Your task to perform on an android device: find which apps use the phone's location Image 0: 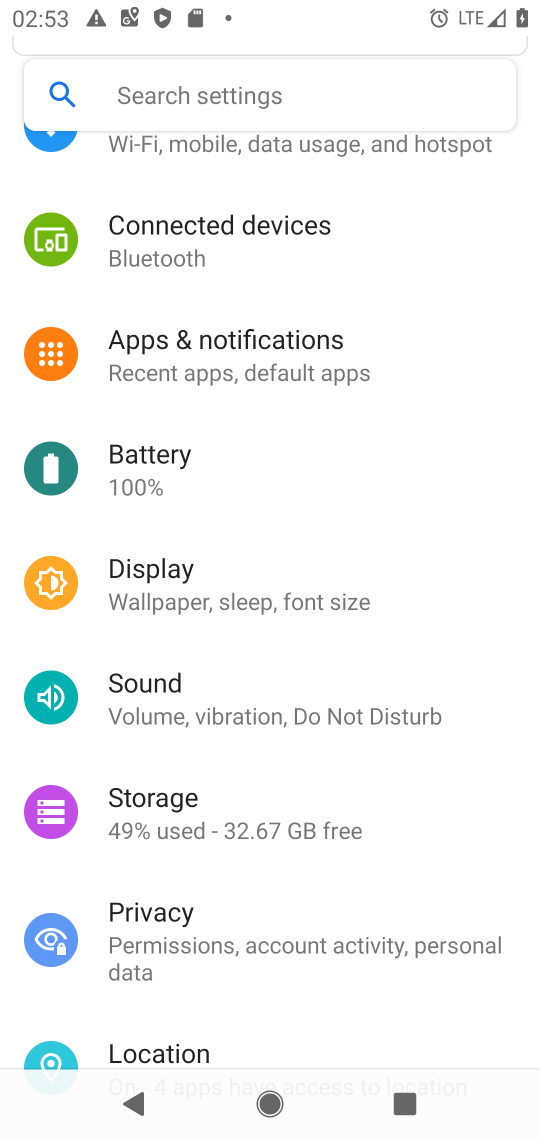
Step 0: press home button
Your task to perform on an android device: find which apps use the phone's location Image 1: 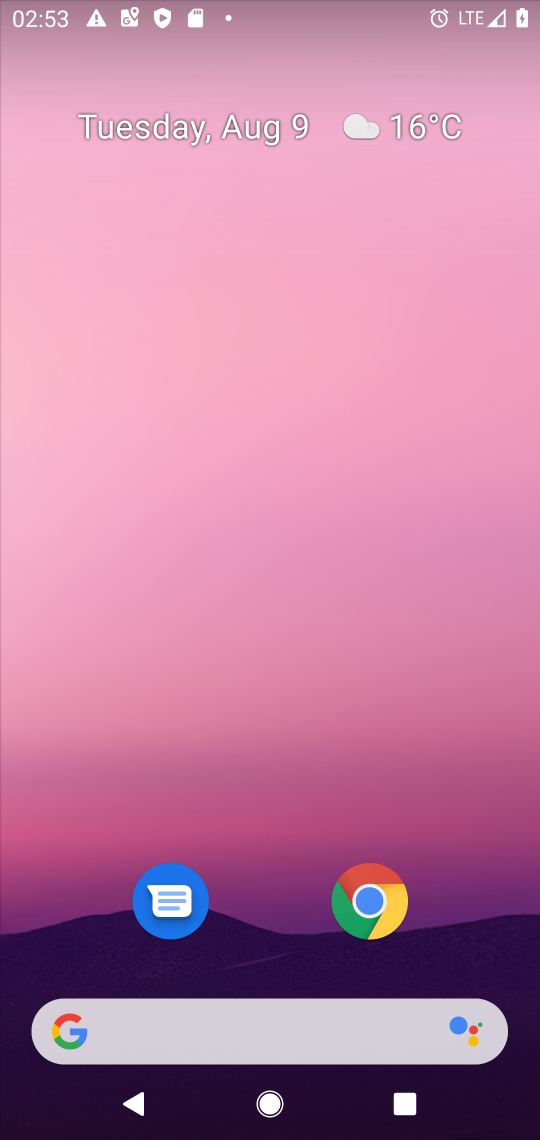
Step 1: drag from (508, 966) to (441, 317)
Your task to perform on an android device: find which apps use the phone's location Image 2: 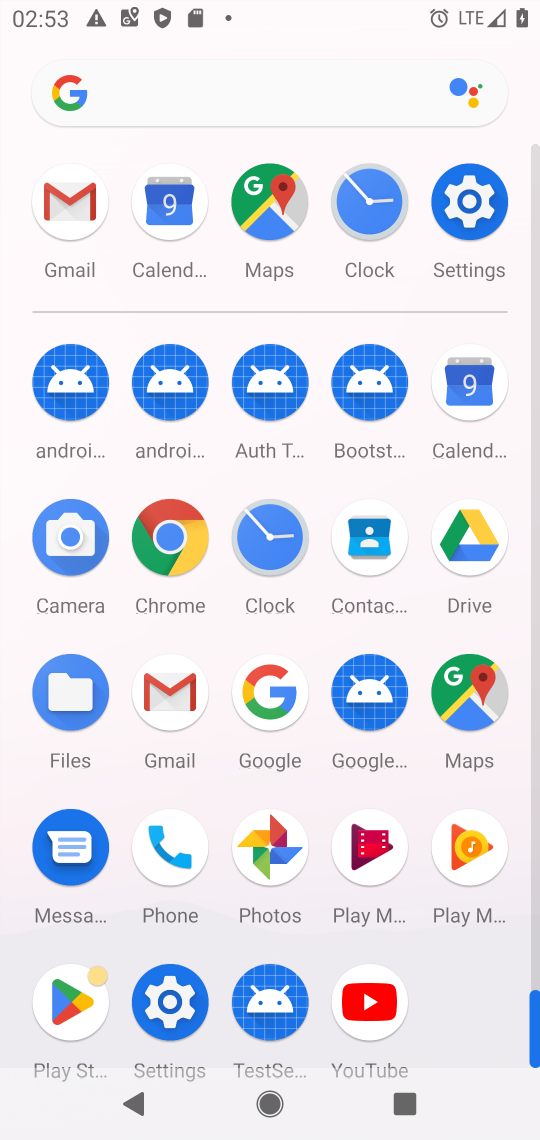
Step 2: click (170, 1000)
Your task to perform on an android device: find which apps use the phone's location Image 3: 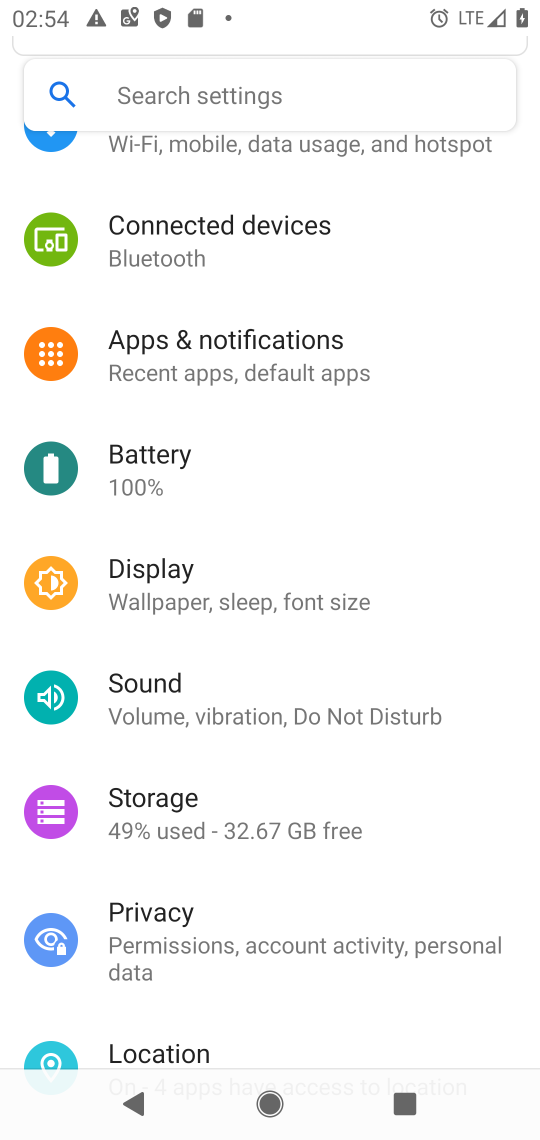
Step 3: drag from (308, 898) to (335, 345)
Your task to perform on an android device: find which apps use the phone's location Image 4: 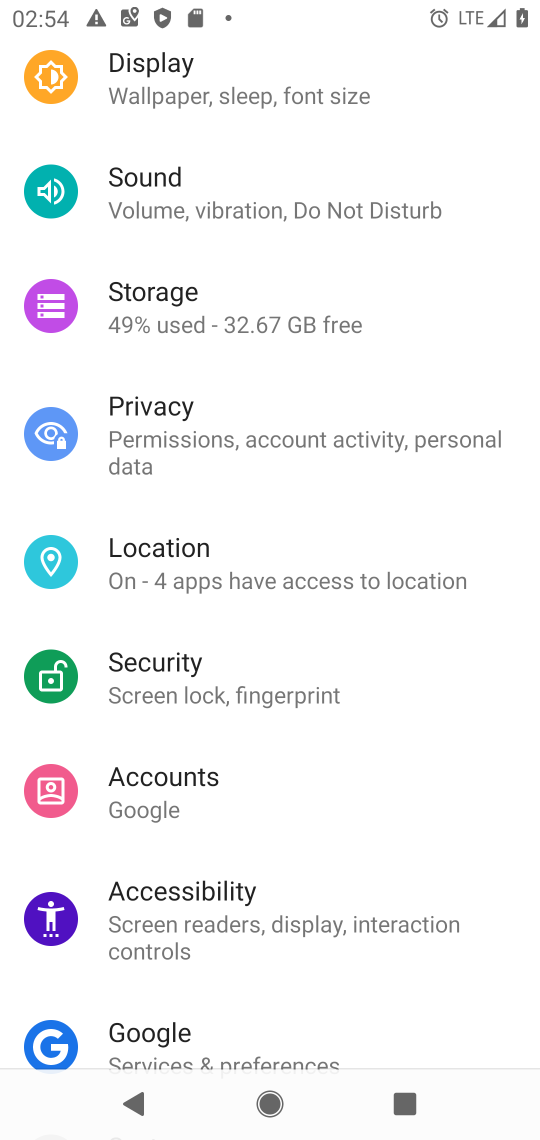
Step 4: click (177, 561)
Your task to perform on an android device: find which apps use the phone's location Image 5: 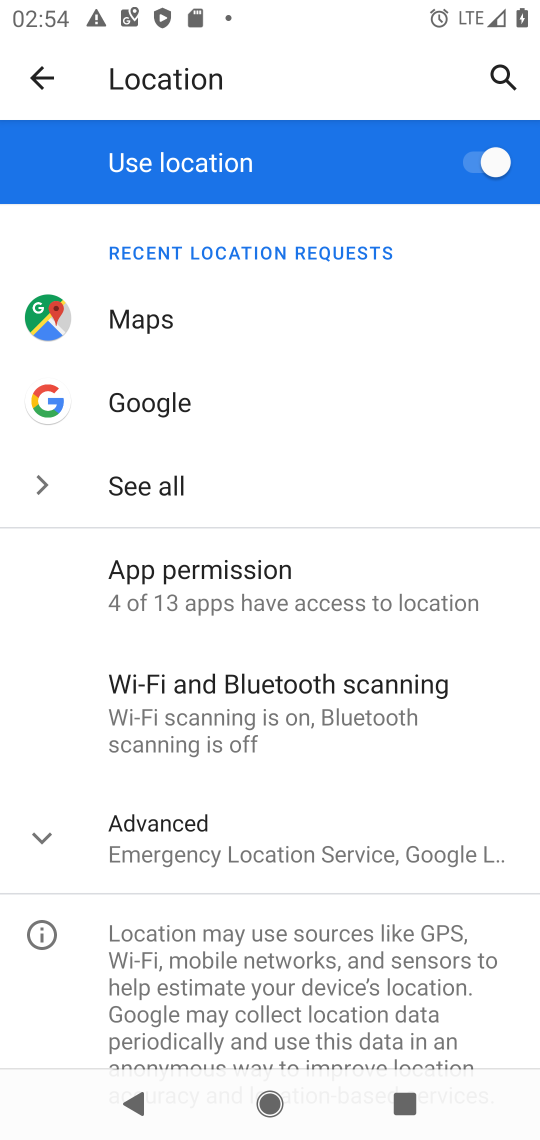
Step 5: click (214, 583)
Your task to perform on an android device: find which apps use the phone's location Image 6: 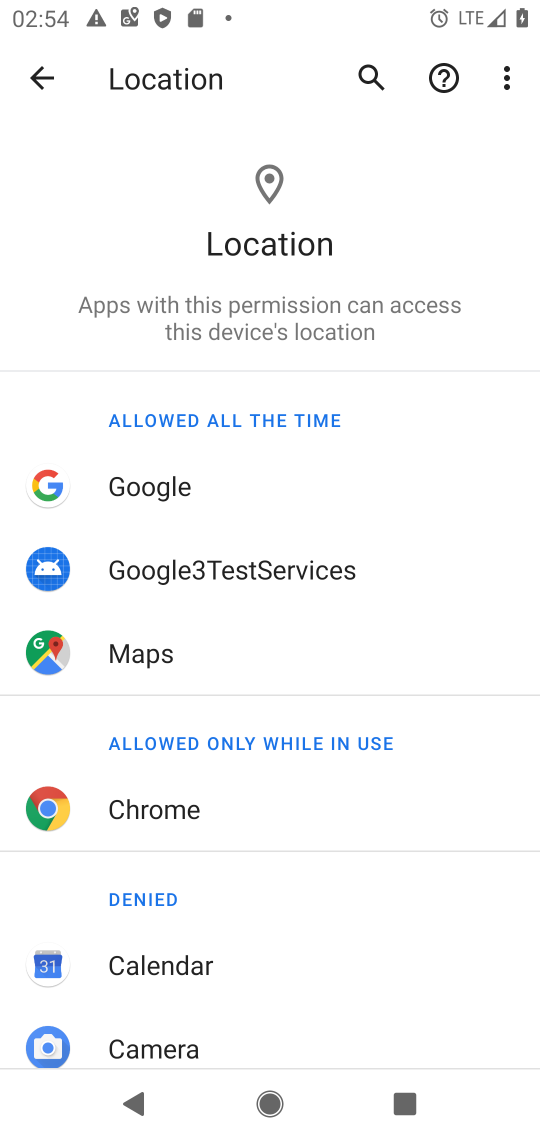
Step 6: task complete